Your task to perform on an android device: find which apps use the phone's location Image 0: 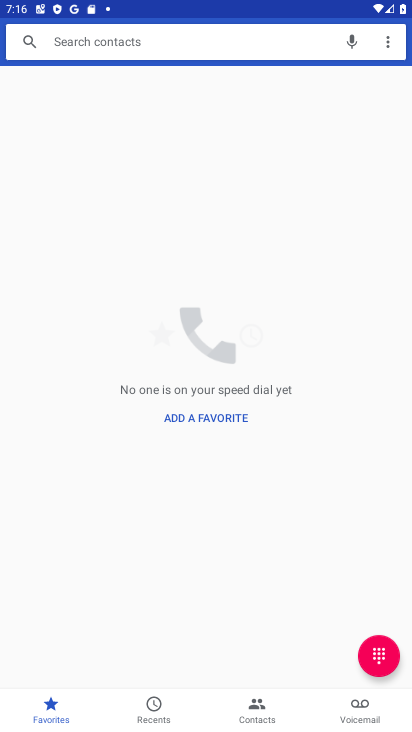
Step 0: drag from (222, 507) to (187, 141)
Your task to perform on an android device: find which apps use the phone's location Image 1: 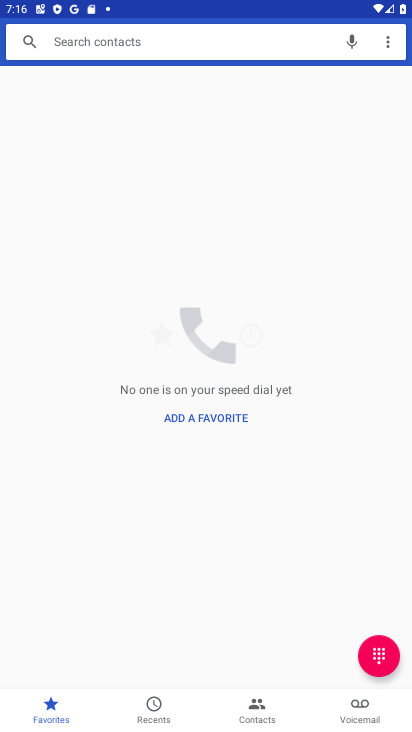
Step 1: press home button
Your task to perform on an android device: find which apps use the phone's location Image 2: 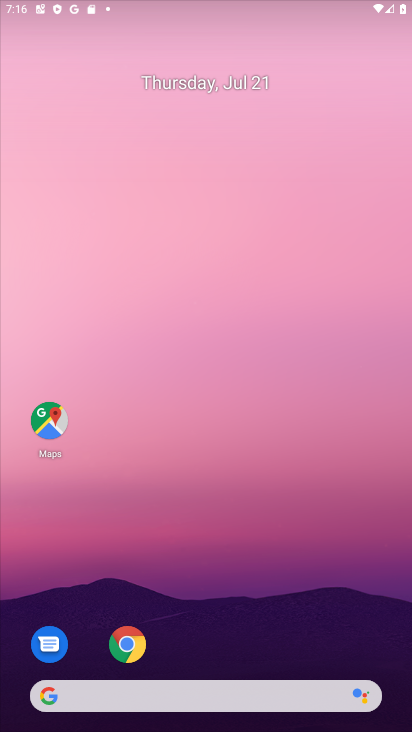
Step 2: drag from (200, 547) to (223, 226)
Your task to perform on an android device: find which apps use the phone's location Image 3: 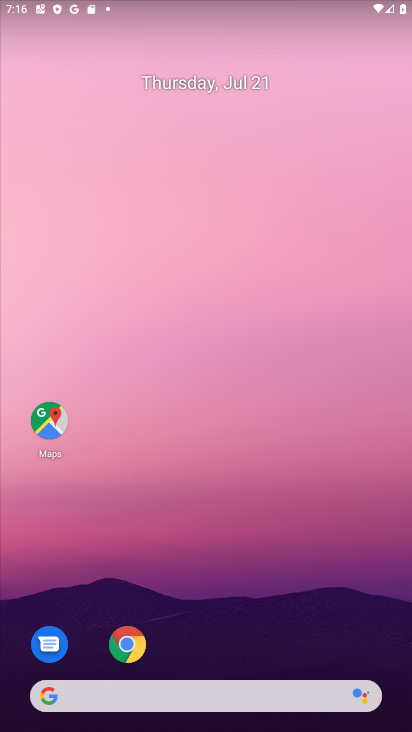
Step 3: drag from (274, 587) to (282, 230)
Your task to perform on an android device: find which apps use the phone's location Image 4: 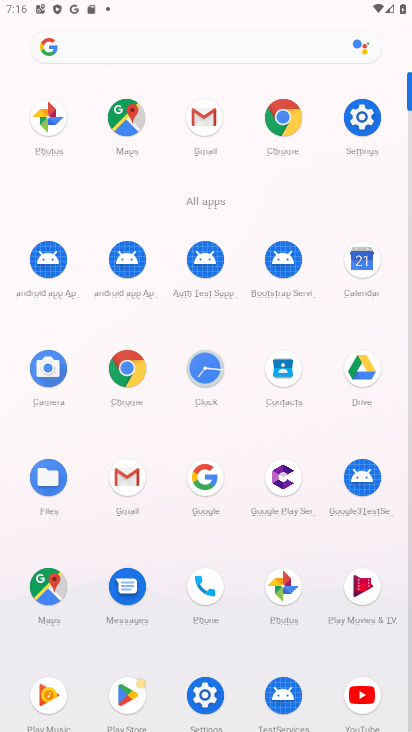
Step 4: click (367, 119)
Your task to perform on an android device: find which apps use the phone's location Image 5: 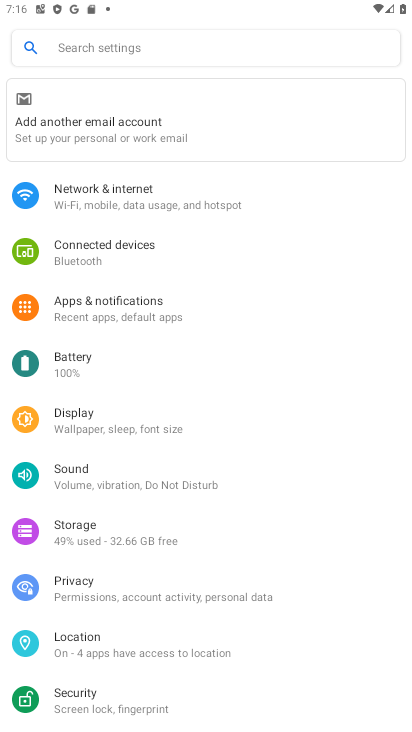
Step 5: click (82, 640)
Your task to perform on an android device: find which apps use the phone's location Image 6: 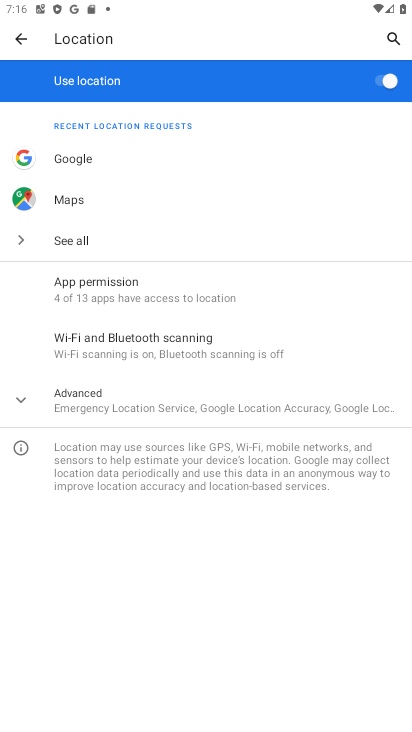
Step 6: task complete